Your task to perform on an android device: add a contact in the contacts app Image 0: 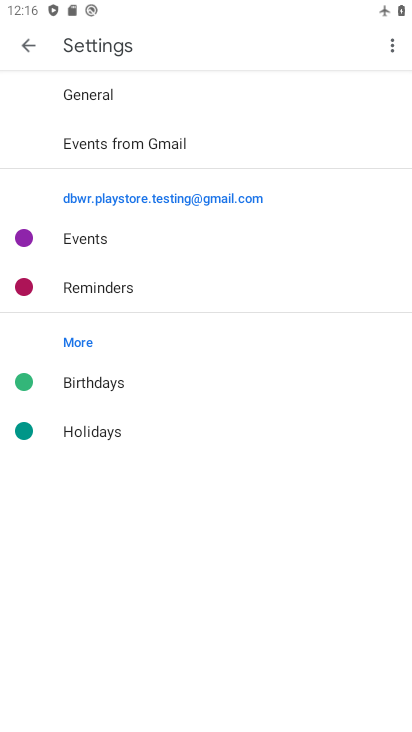
Step 0: press back button
Your task to perform on an android device: add a contact in the contacts app Image 1: 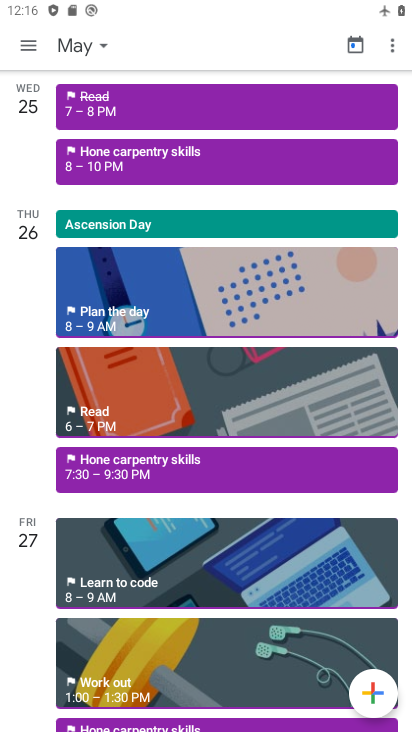
Step 1: press back button
Your task to perform on an android device: add a contact in the contacts app Image 2: 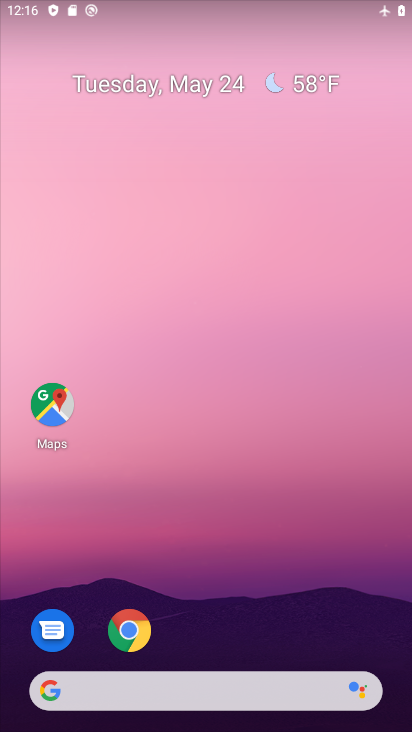
Step 2: drag from (255, 596) to (207, 230)
Your task to perform on an android device: add a contact in the contacts app Image 3: 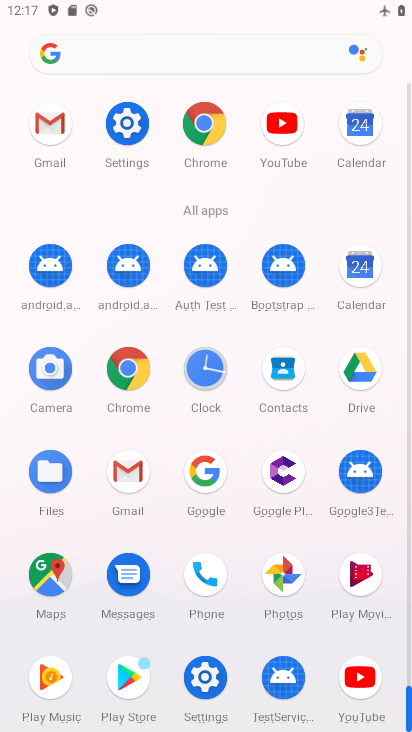
Step 3: click (281, 372)
Your task to perform on an android device: add a contact in the contacts app Image 4: 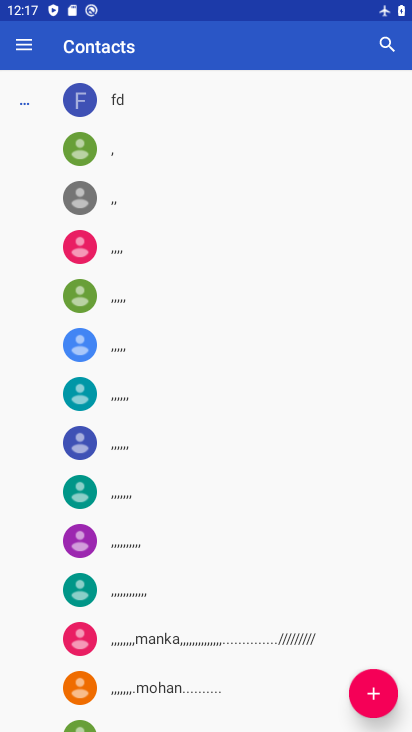
Step 4: click (374, 695)
Your task to perform on an android device: add a contact in the contacts app Image 5: 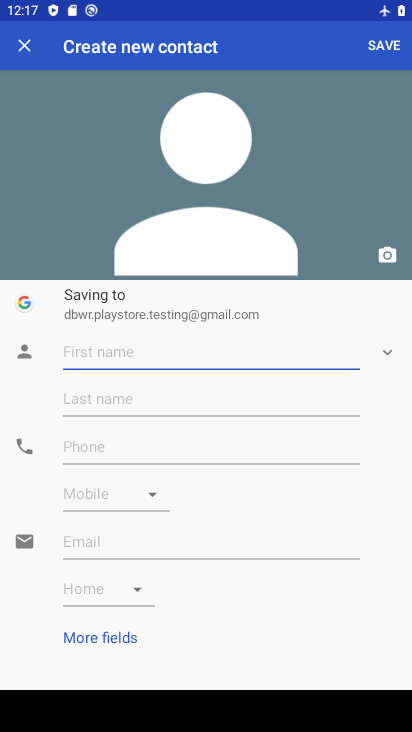
Step 5: click (212, 351)
Your task to perform on an android device: add a contact in the contacts app Image 6: 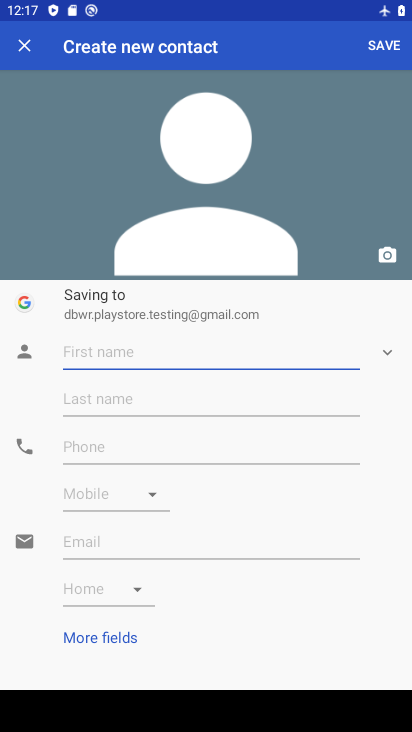
Step 6: type "Dheerendra"
Your task to perform on an android device: add a contact in the contacts app Image 7: 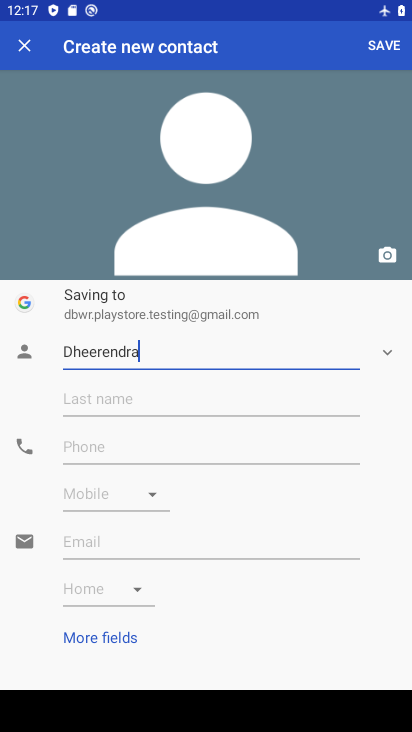
Step 7: click (177, 401)
Your task to perform on an android device: add a contact in the contacts app Image 8: 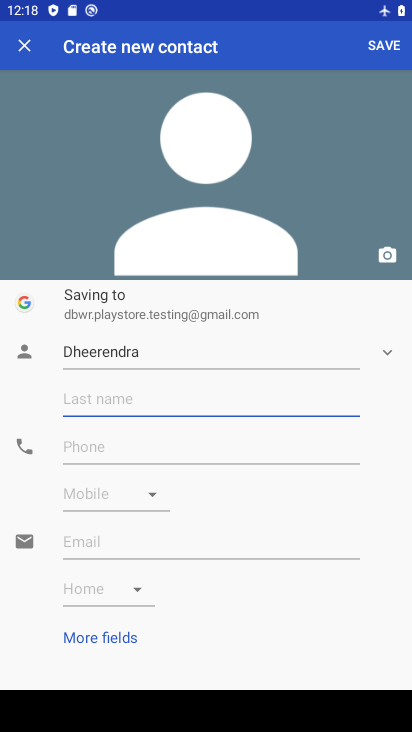
Step 8: type "Pandey"
Your task to perform on an android device: add a contact in the contacts app Image 9: 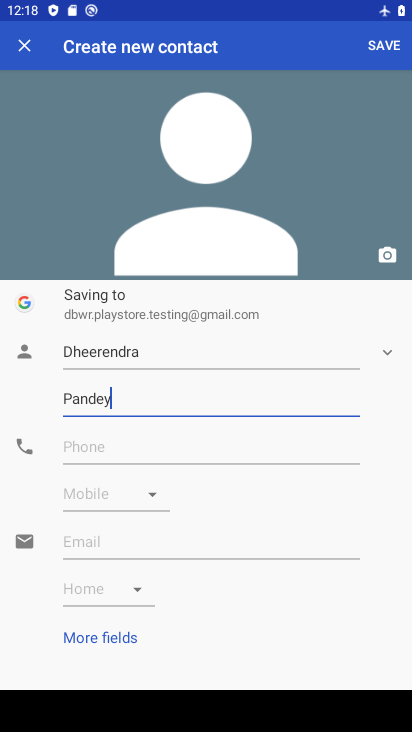
Step 9: click (261, 453)
Your task to perform on an android device: add a contact in the contacts app Image 10: 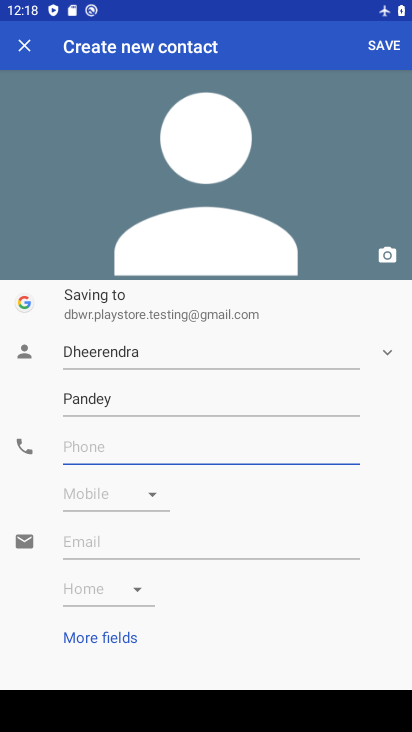
Step 10: type "09908451585"
Your task to perform on an android device: add a contact in the contacts app Image 11: 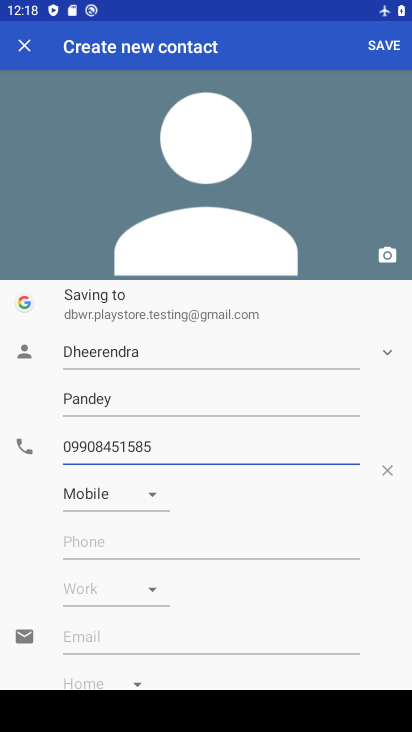
Step 11: click (383, 49)
Your task to perform on an android device: add a contact in the contacts app Image 12: 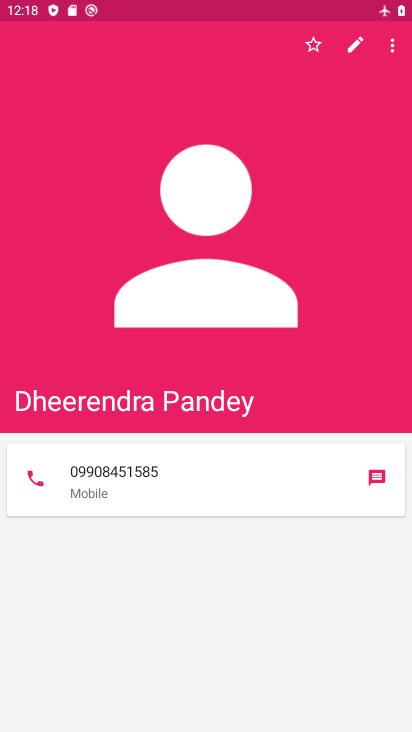
Step 12: task complete